Your task to perform on an android device: turn notification dots off Image 0: 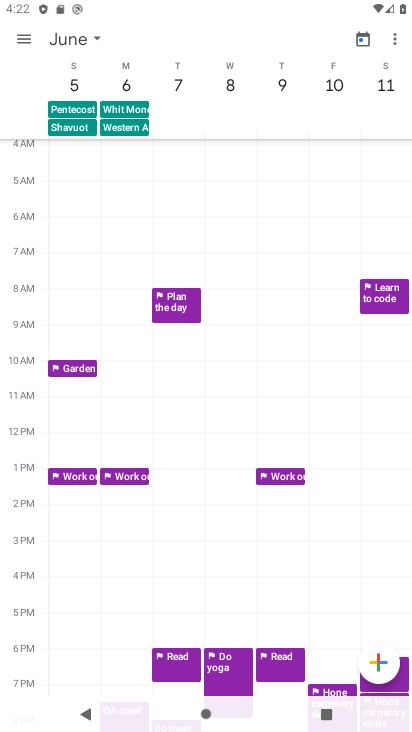
Step 0: press home button
Your task to perform on an android device: turn notification dots off Image 1: 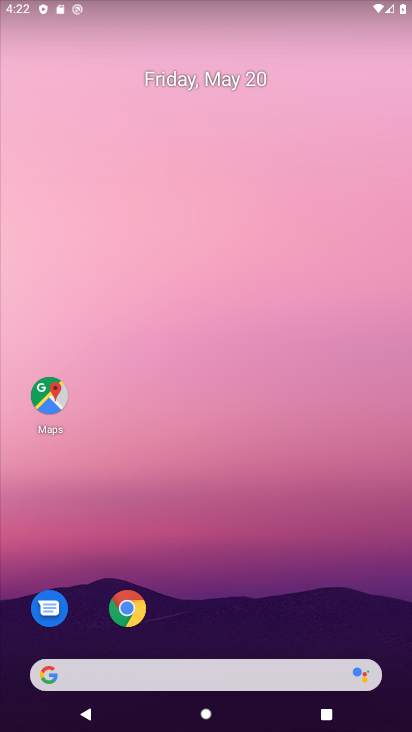
Step 1: drag from (183, 642) to (122, 7)
Your task to perform on an android device: turn notification dots off Image 2: 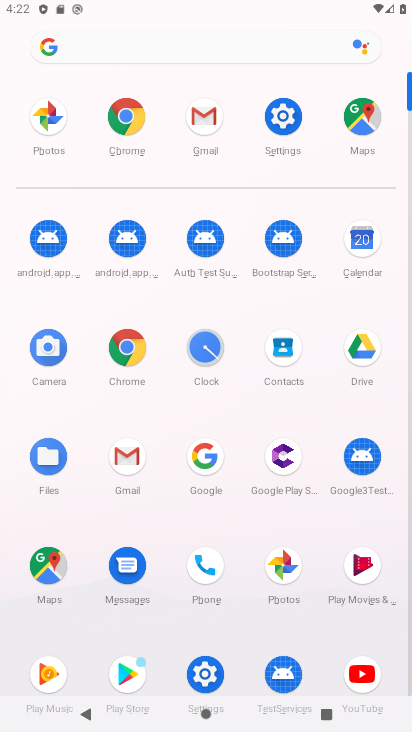
Step 2: click (281, 127)
Your task to perform on an android device: turn notification dots off Image 3: 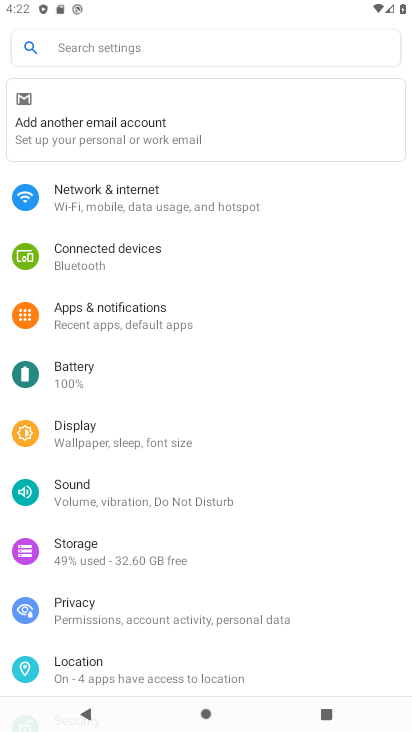
Step 3: click (154, 313)
Your task to perform on an android device: turn notification dots off Image 4: 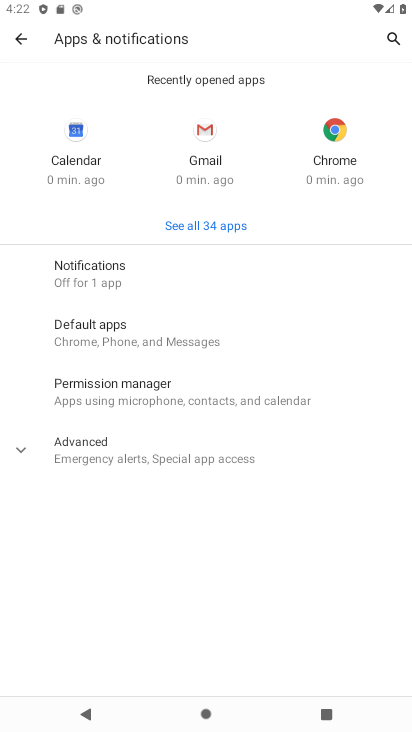
Step 4: click (75, 445)
Your task to perform on an android device: turn notification dots off Image 5: 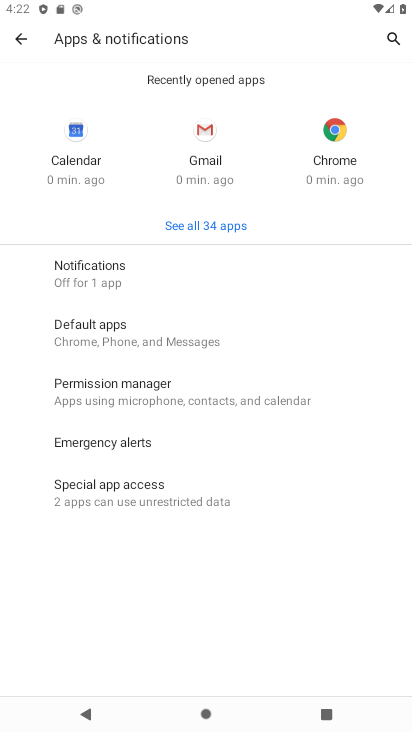
Step 5: click (77, 281)
Your task to perform on an android device: turn notification dots off Image 6: 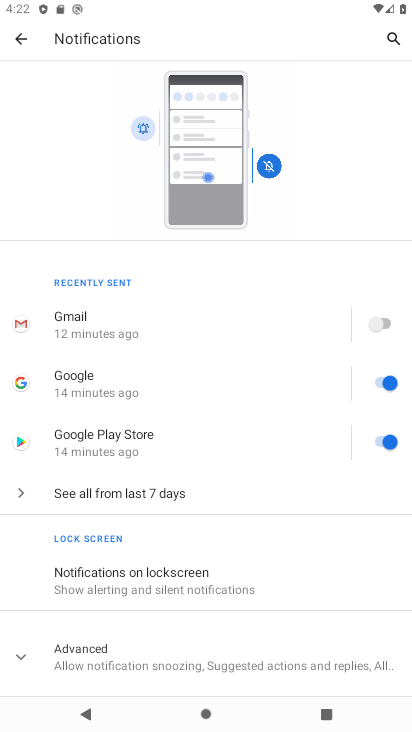
Step 6: drag from (150, 577) to (133, 233)
Your task to perform on an android device: turn notification dots off Image 7: 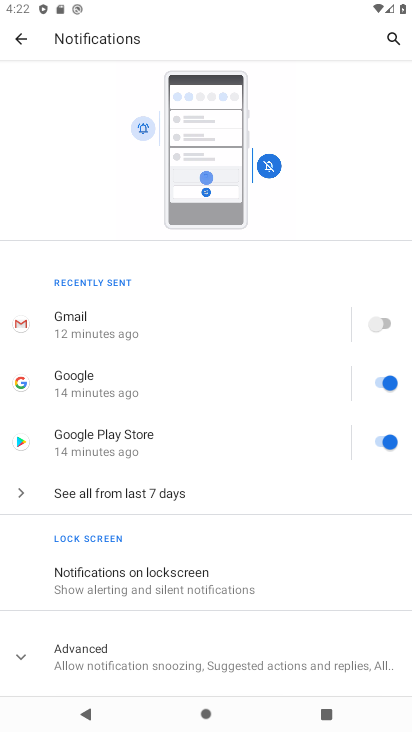
Step 7: click (122, 633)
Your task to perform on an android device: turn notification dots off Image 8: 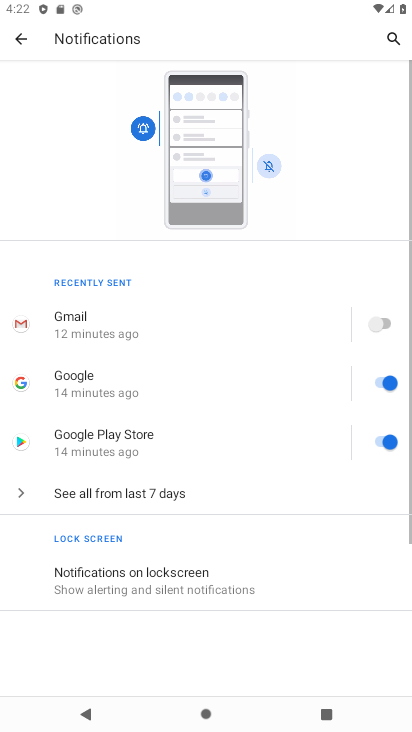
Step 8: drag from (122, 633) to (51, 170)
Your task to perform on an android device: turn notification dots off Image 9: 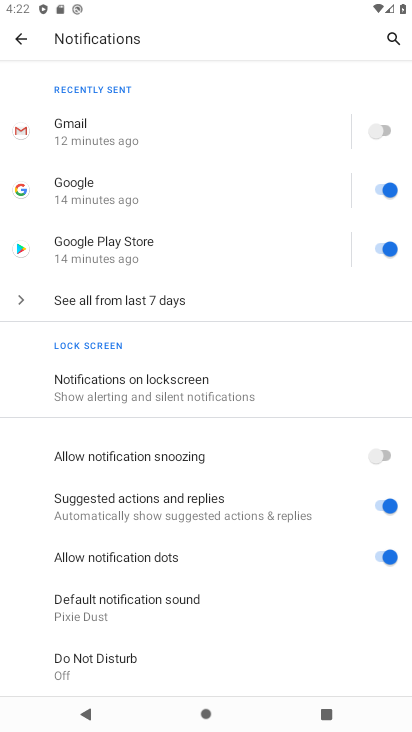
Step 9: click (382, 553)
Your task to perform on an android device: turn notification dots off Image 10: 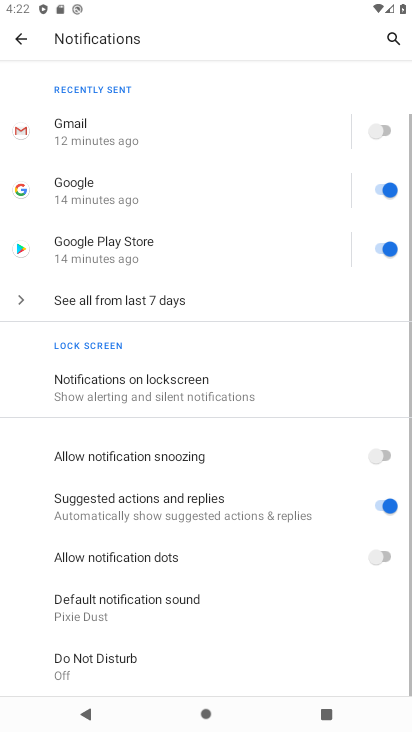
Step 10: task complete